Your task to perform on an android device: Go to Android settings Image 0: 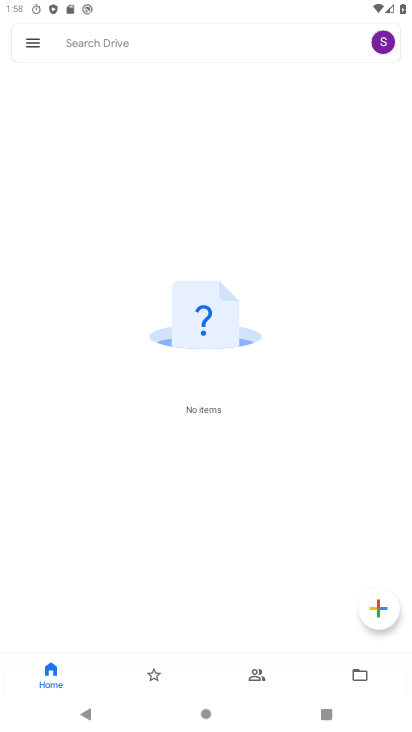
Step 0: drag from (164, 524) to (310, 211)
Your task to perform on an android device: Go to Android settings Image 1: 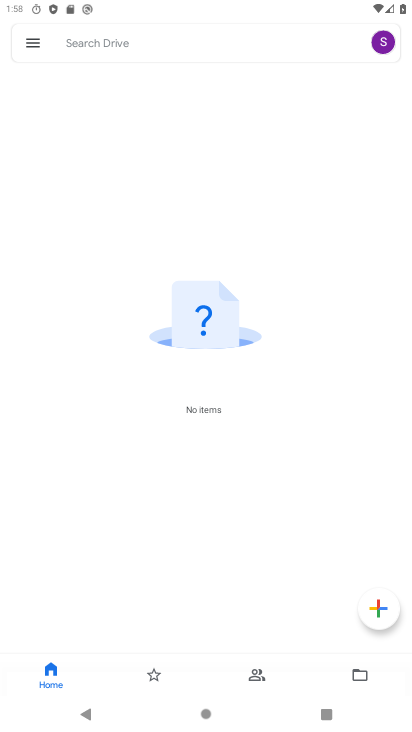
Step 1: press home button
Your task to perform on an android device: Go to Android settings Image 2: 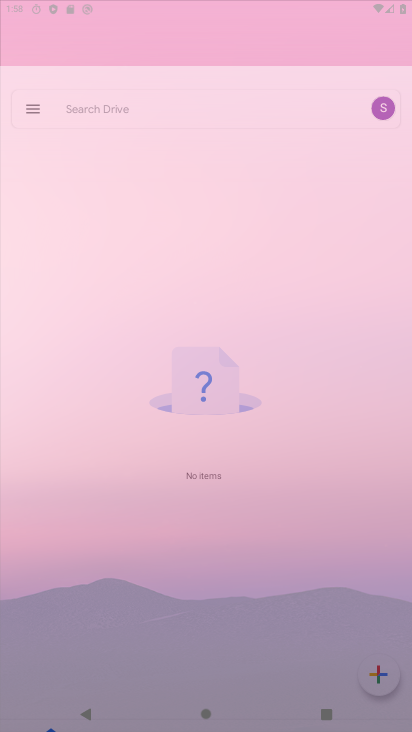
Step 2: drag from (204, 560) to (314, 137)
Your task to perform on an android device: Go to Android settings Image 3: 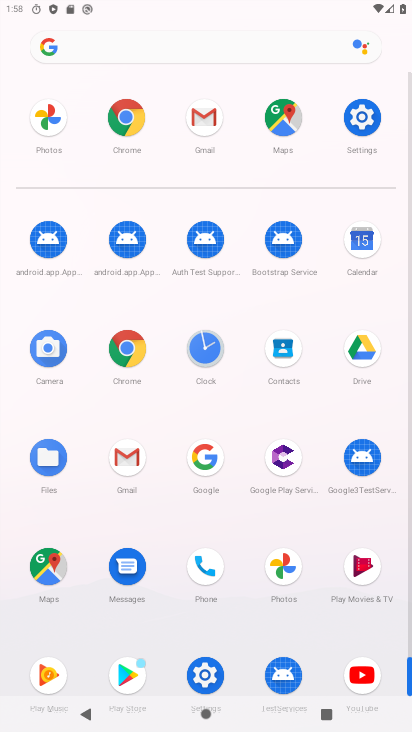
Step 3: click (372, 109)
Your task to perform on an android device: Go to Android settings Image 4: 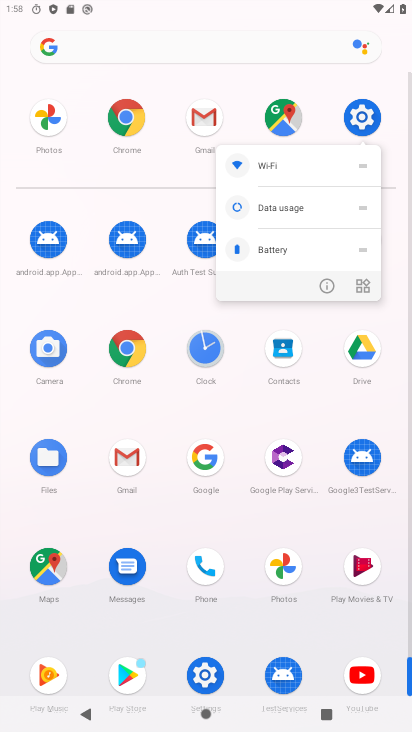
Step 4: click (332, 278)
Your task to perform on an android device: Go to Android settings Image 5: 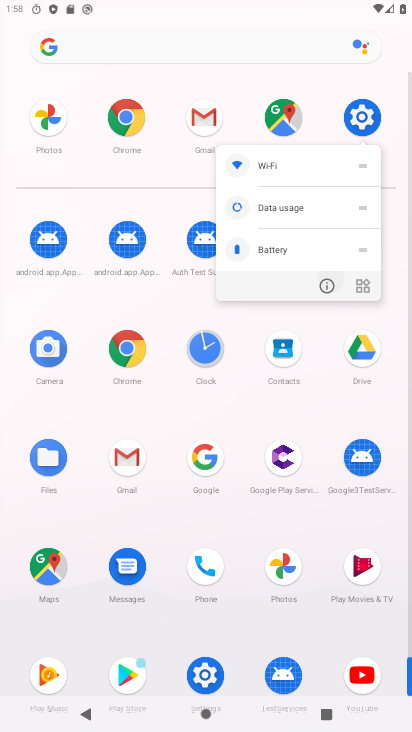
Step 5: click (332, 278)
Your task to perform on an android device: Go to Android settings Image 6: 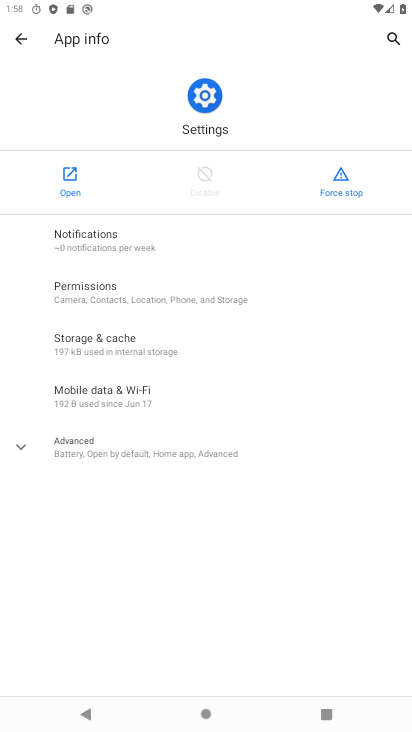
Step 6: click (67, 173)
Your task to perform on an android device: Go to Android settings Image 7: 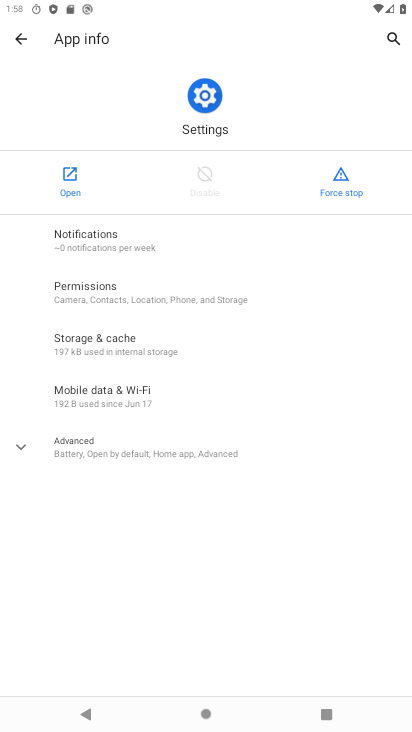
Step 7: click (67, 173)
Your task to perform on an android device: Go to Android settings Image 8: 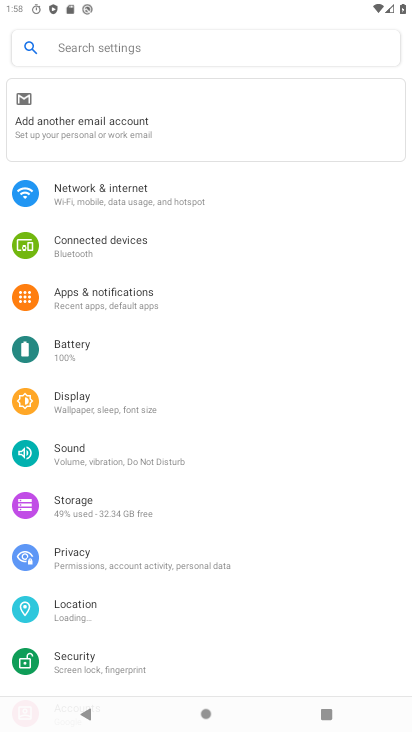
Step 8: drag from (188, 636) to (280, 79)
Your task to perform on an android device: Go to Android settings Image 9: 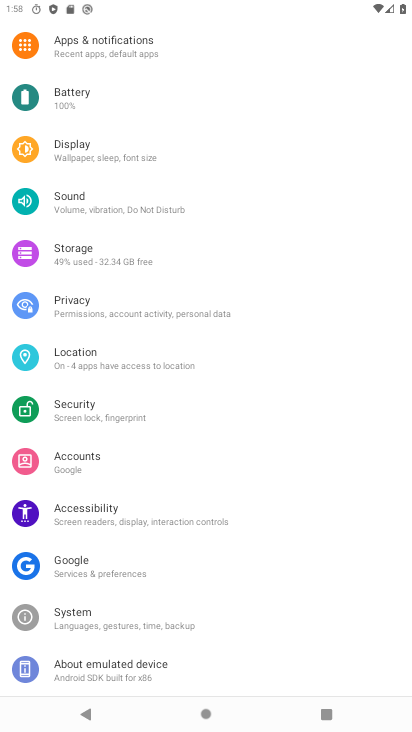
Step 9: drag from (215, 525) to (263, 196)
Your task to perform on an android device: Go to Android settings Image 10: 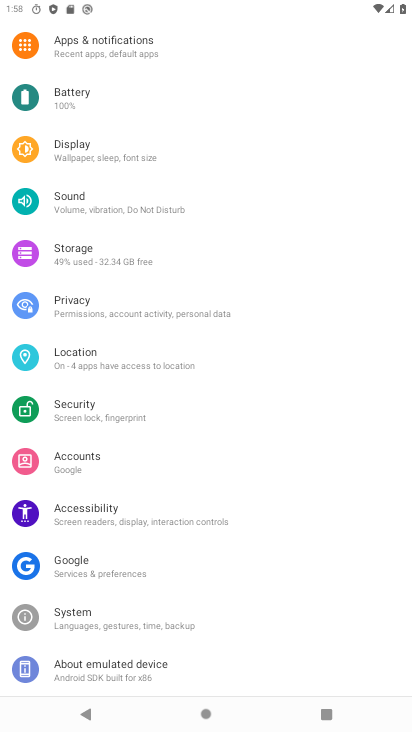
Step 10: click (140, 672)
Your task to perform on an android device: Go to Android settings Image 11: 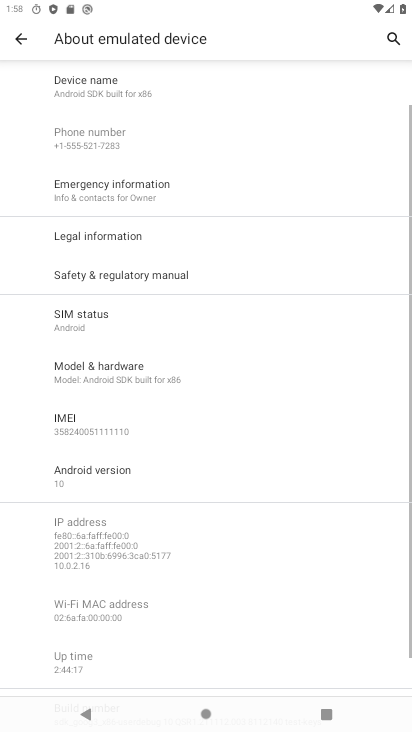
Step 11: click (92, 477)
Your task to perform on an android device: Go to Android settings Image 12: 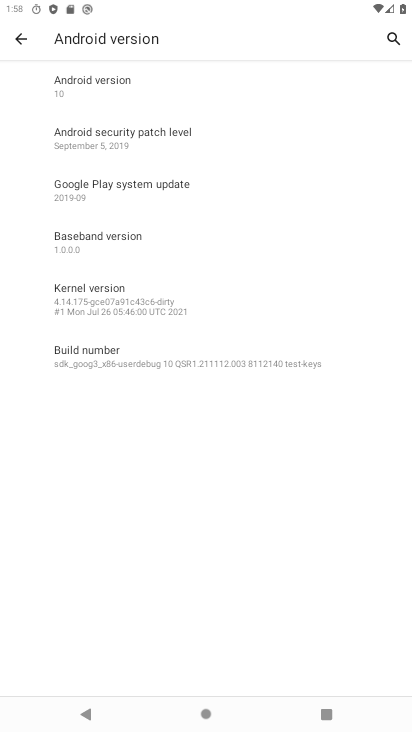
Step 12: drag from (202, 644) to (264, 199)
Your task to perform on an android device: Go to Android settings Image 13: 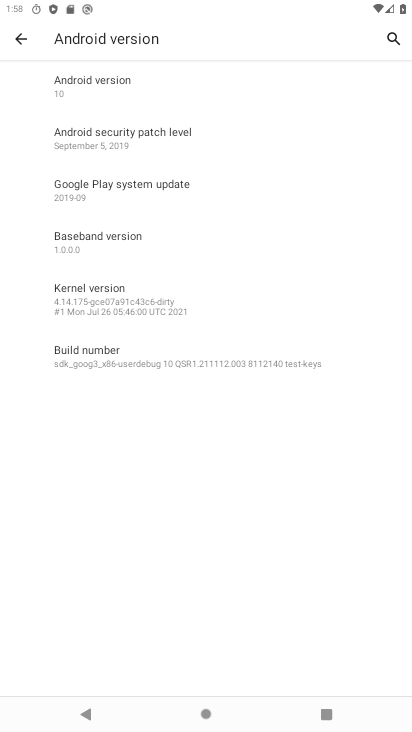
Step 13: drag from (166, 548) to (166, 329)
Your task to perform on an android device: Go to Android settings Image 14: 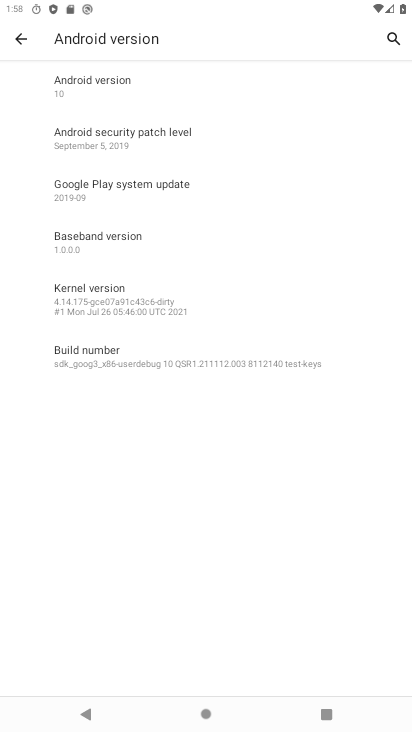
Step 14: click (110, 75)
Your task to perform on an android device: Go to Android settings Image 15: 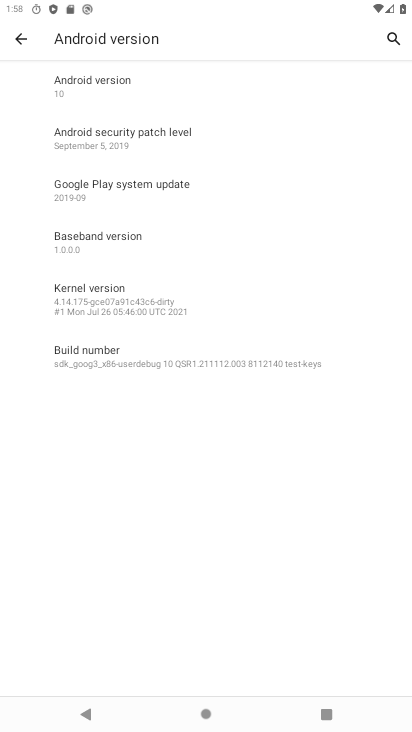
Step 15: drag from (206, 456) to (233, 169)
Your task to perform on an android device: Go to Android settings Image 16: 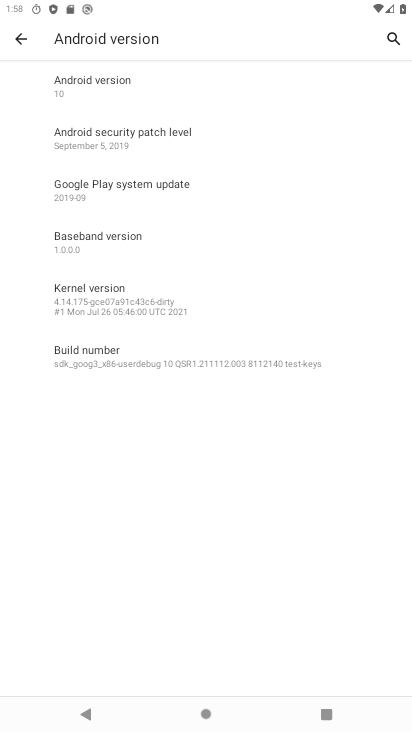
Step 16: click (170, 81)
Your task to perform on an android device: Go to Android settings Image 17: 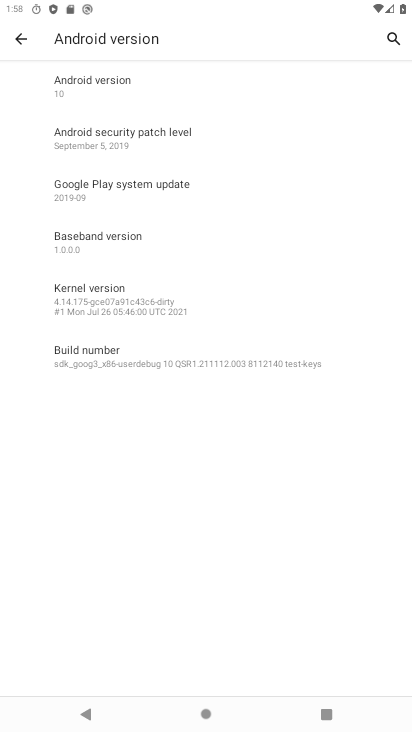
Step 17: task complete